Your task to perform on an android device: turn on showing notifications on the lock screen Image 0: 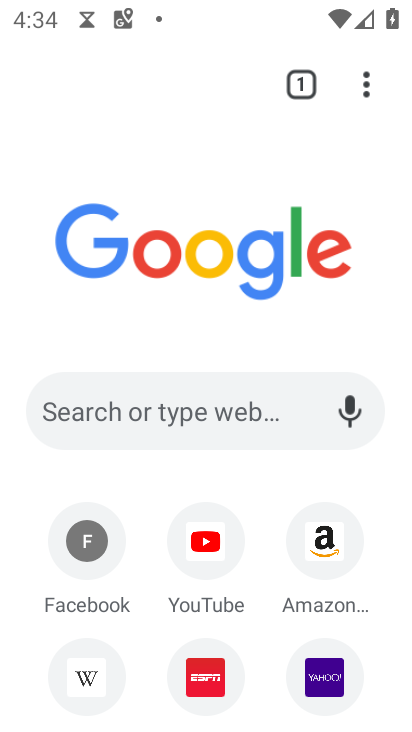
Step 0: press home button
Your task to perform on an android device: turn on showing notifications on the lock screen Image 1: 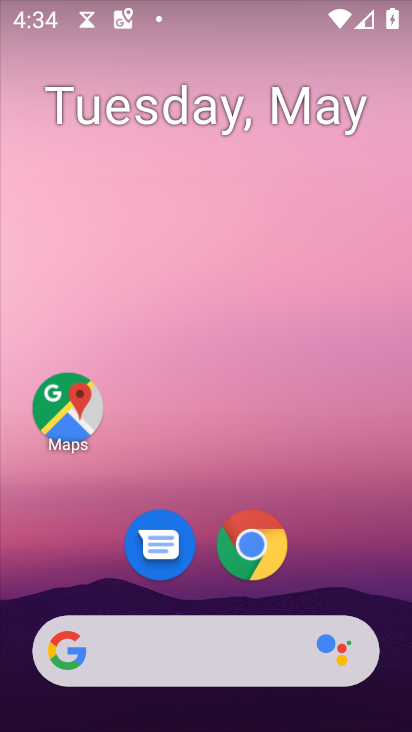
Step 1: drag from (318, 581) to (285, 200)
Your task to perform on an android device: turn on showing notifications on the lock screen Image 2: 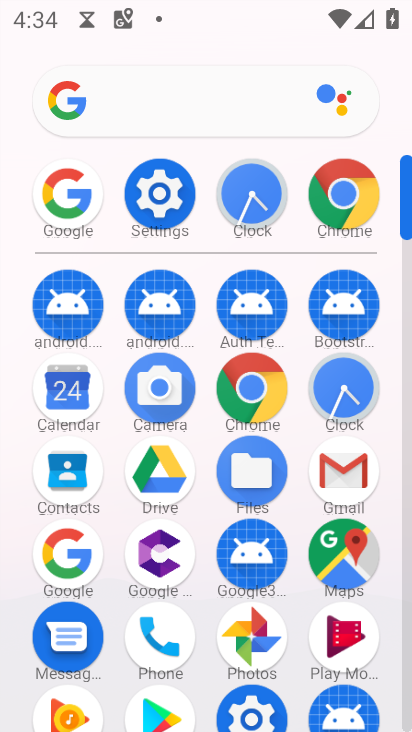
Step 2: click (159, 191)
Your task to perform on an android device: turn on showing notifications on the lock screen Image 3: 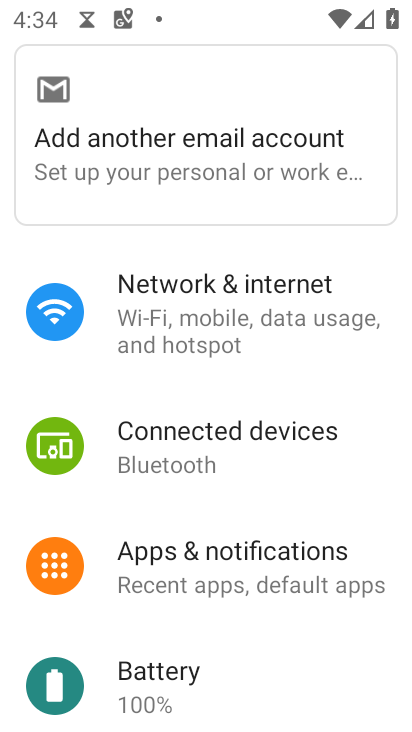
Step 3: drag from (203, 523) to (237, 385)
Your task to perform on an android device: turn on showing notifications on the lock screen Image 4: 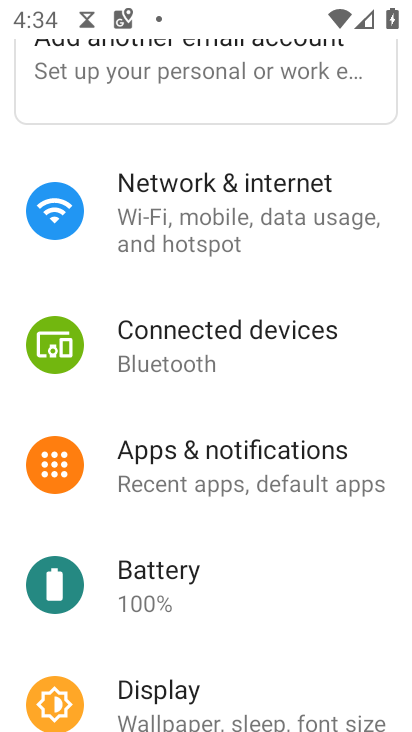
Step 4: click (201, 469)
Your task to perform on an android device: turn on showing notifications on the lock screen Image 5: 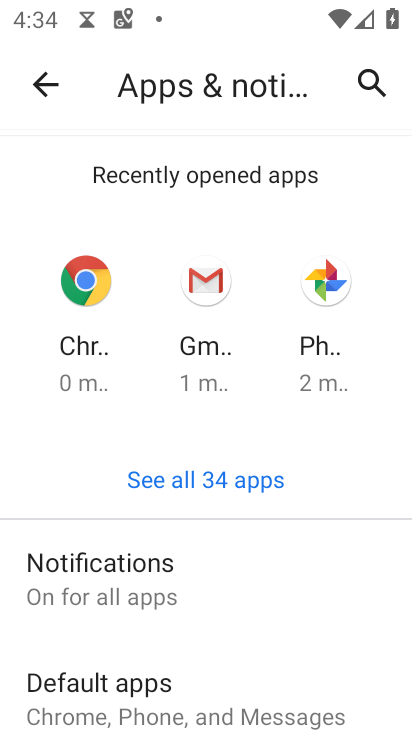
Step 5: click (133, 567)
Your task to perform on an android device: turn on showing notifications on the lock screen Image 6: 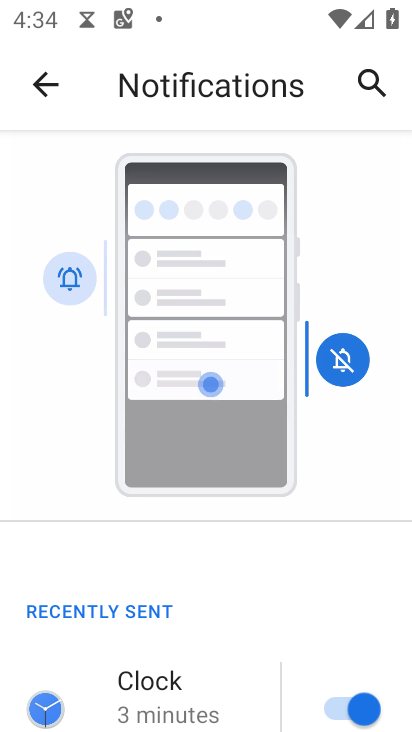
Step 6: drag from (205, 595) to (195, 241)
Your task to perform on an android device: turn on showing notifications on the lock screen Image 7: 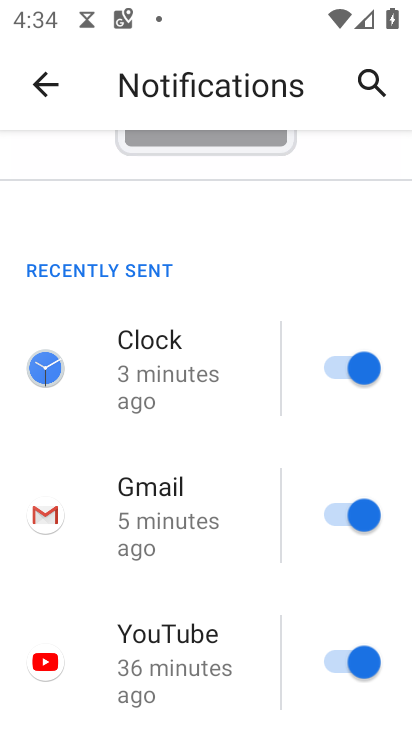
Step 7: drag from (153, 594) to (163, 294)
Your task to perform on an android device: turn on showing notifications on the lock screen Image 8: 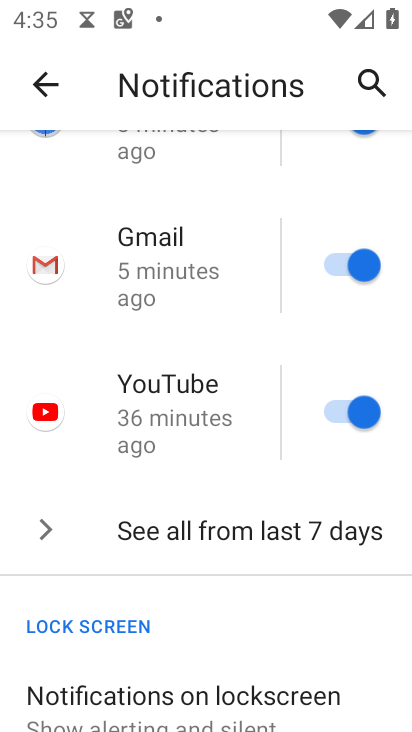
Step 8: drag from (178, 491) to (168, 245)
Your task to perform on an android device: turn on showing notifications on the lock screen Image 9: 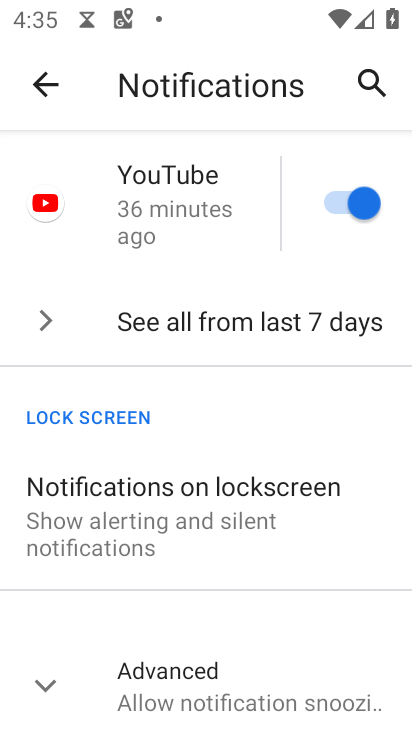
Step 9: click (179, 481)
Your task to perform on an android device: turn on showing notifications on the lock screen Image 10: 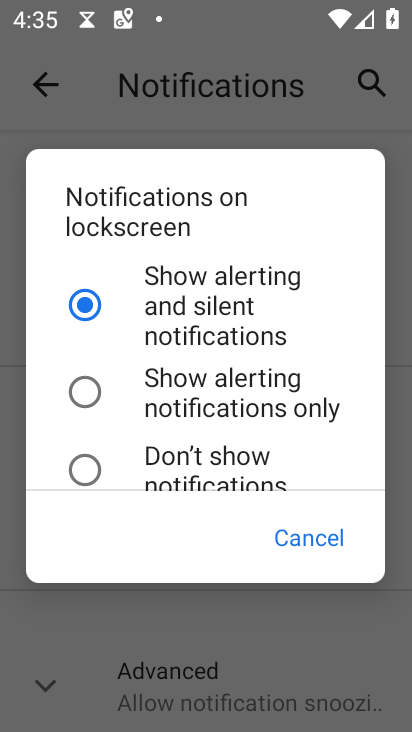
Step 10: click (88, 307)
Your task to perform on an android device: turn on showing notifications on the lock screen Image 11: 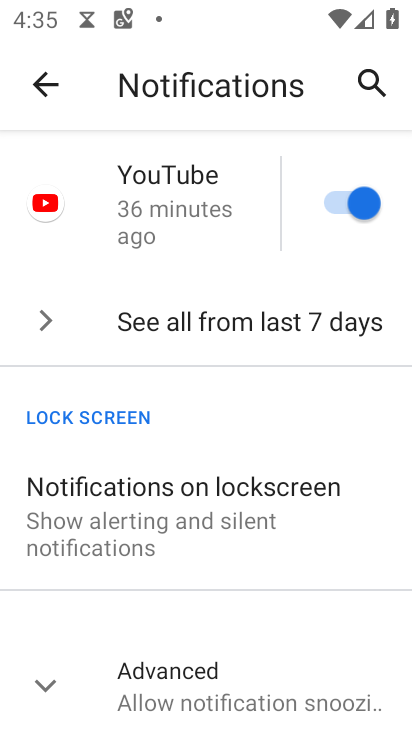
Step 11: task complete